Your task to perform on an android device: Go to eBay Image 0: 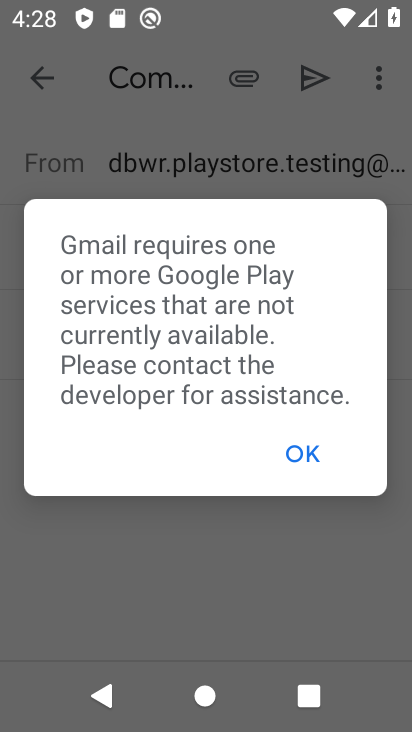
Step 0: press home button
Your task to perform on an android device: Go to eBay Image 1: 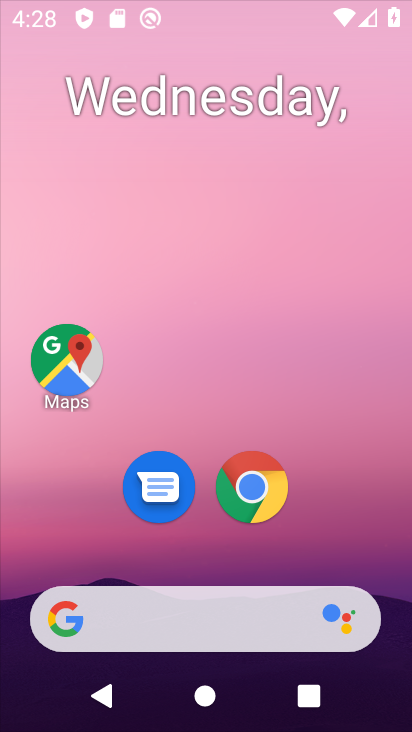
Step 1: click (241, 482)
Your task to perform on an android device: Go to eBay Image 2: 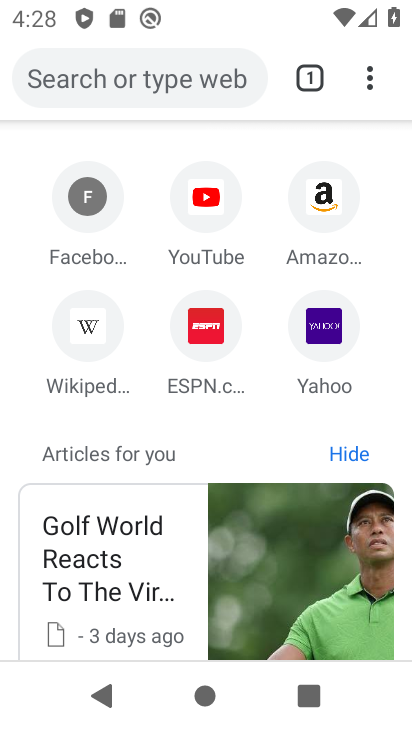
Step 2: click (195, 81)
Your task to perform on an android device: Go to eBay Image 3: 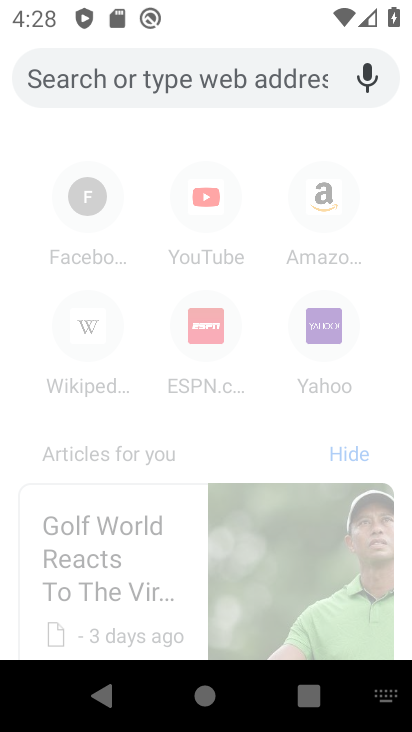
Step 3: type "ebay"
Your task to perform on an android device: Go to eBay Image 4: 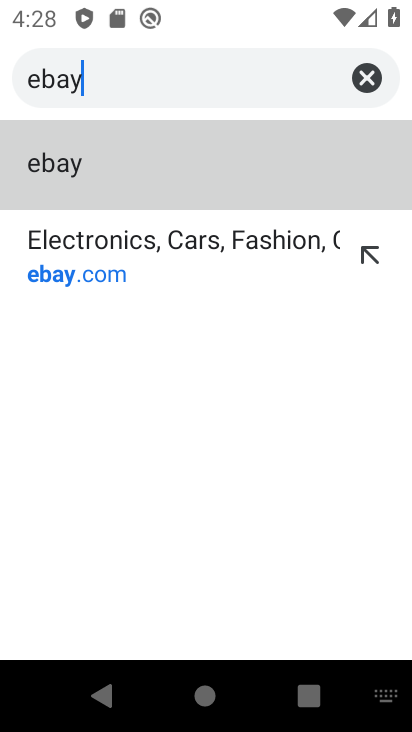
Step 4: click (139, 245)
Your task to perform on an android device: Go to eBay Image 5: 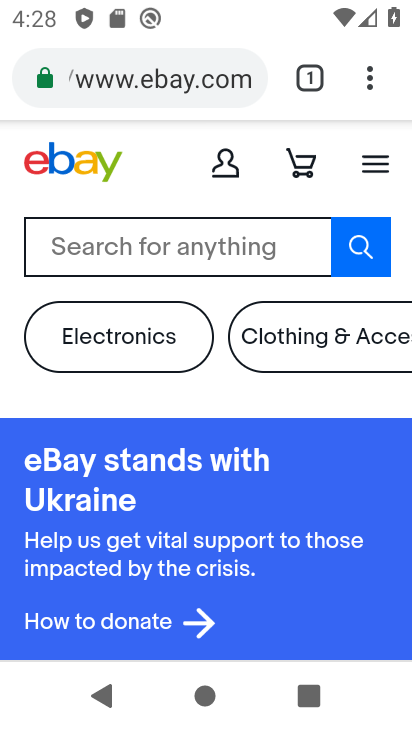
Step 5: drag from (277, 610) to (308, 204)
Your task to perform on an android device: Go to eBay Image 6: 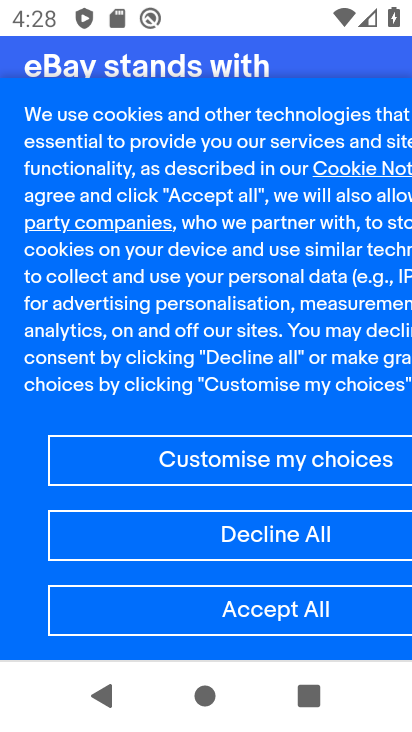
Step 6: drag from (261, 551) to (291, 261)
Your task to perform on an android device: Go to eBay Image 7: 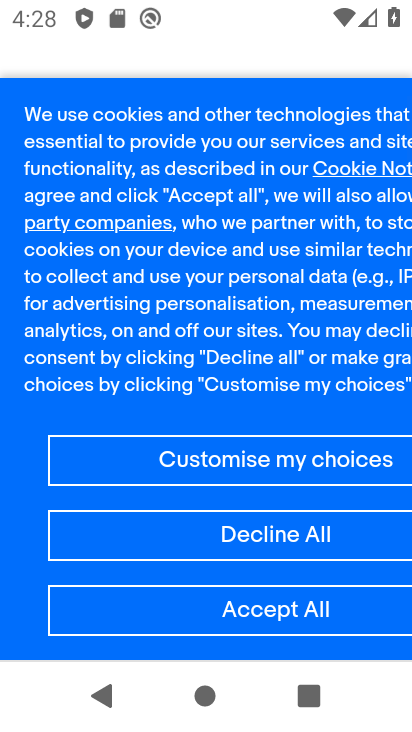
Step 7: click (278, 619)
Your task to perform on an android device: Go to eBay Image 8: 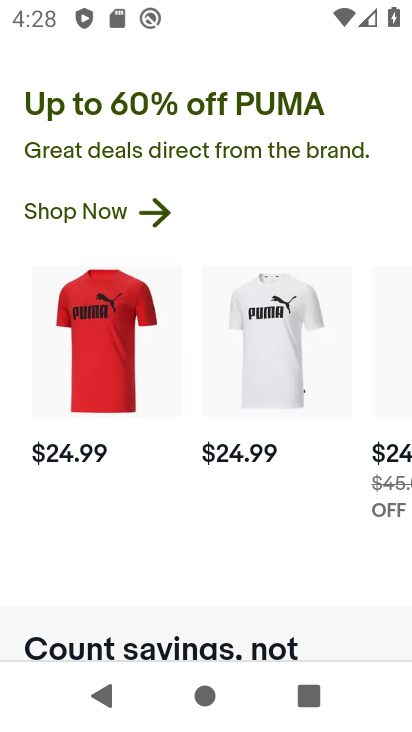
Step 8: task complete